Your task to perform on an android device: turn notification dots on Image 0: 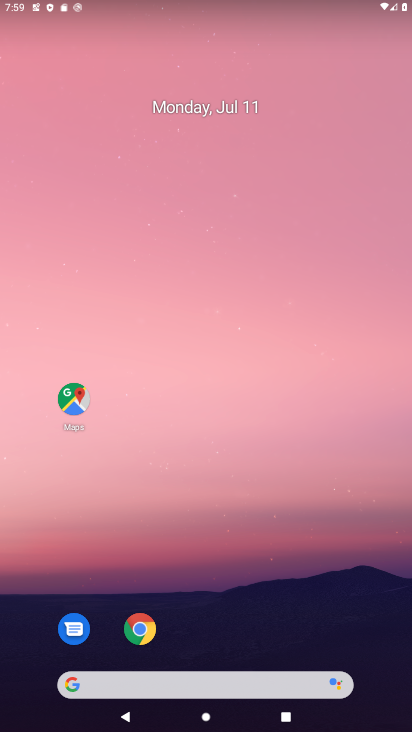
Step 0: drag from (242, 647) to (279, 245)
Your task to perform on an android device: turn notification dots on Image 1: 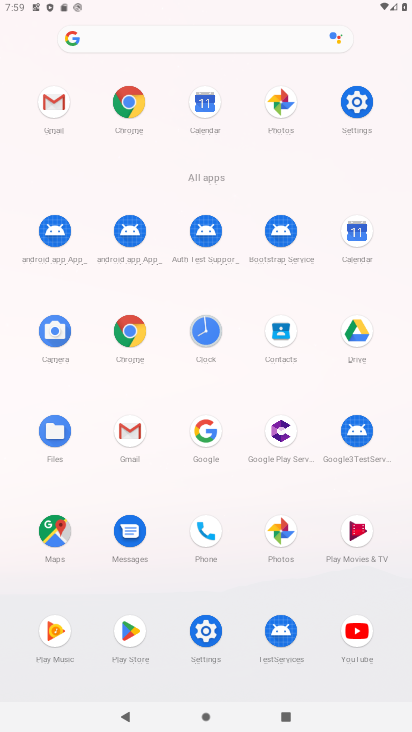
Step 1: click (358, 104)
Your task to perform on an android device: turn notification dots on Image 2: 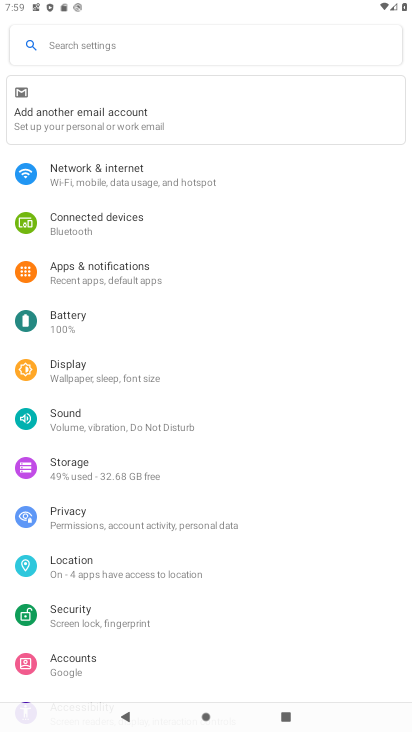
Step 2: click (137, 270)
Your task to perform on an android device: turn notification dots on Image 3: 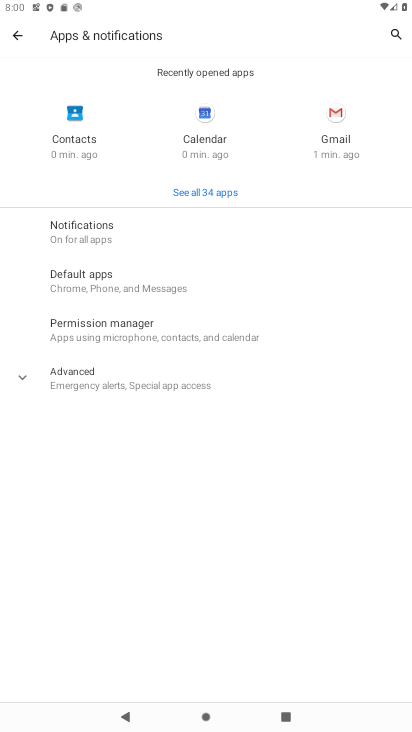
Step 3: click (111, 233)
Your task to perform on an android device: turn notification dots on Image 4: 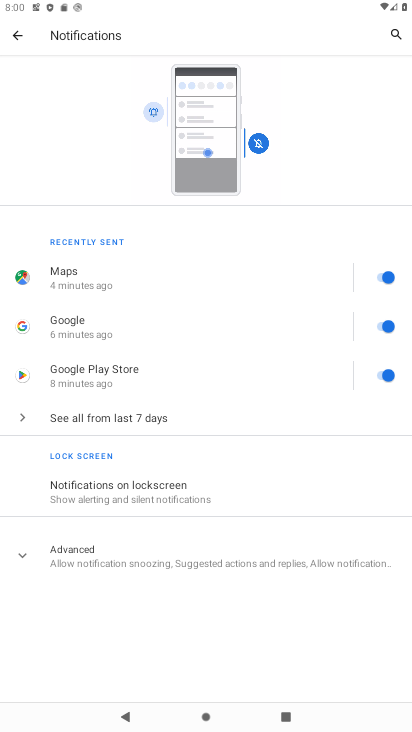
Step 4: click (107, 554)
Your task to perform on an android device: turn notification dots on Image 5: 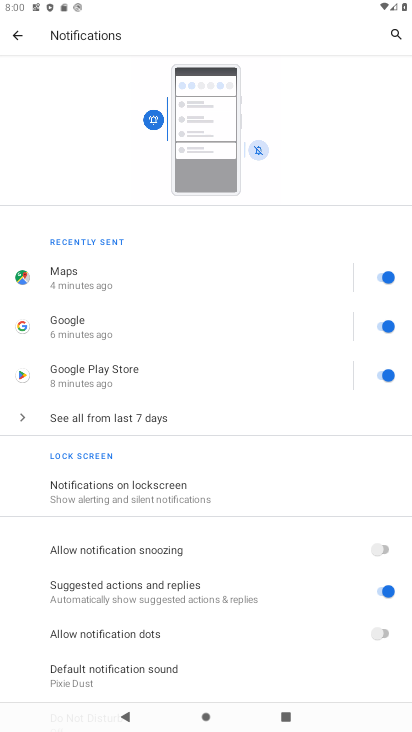
Step 5: click (376, 636)
Your task to perform on an android device: turn notification dots on Image 6: 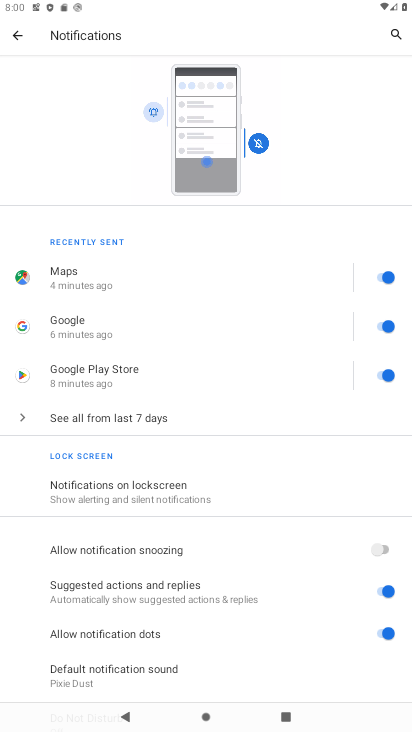
Step 6: task complete